Your task to perform on an android device: Open Google Image 0: 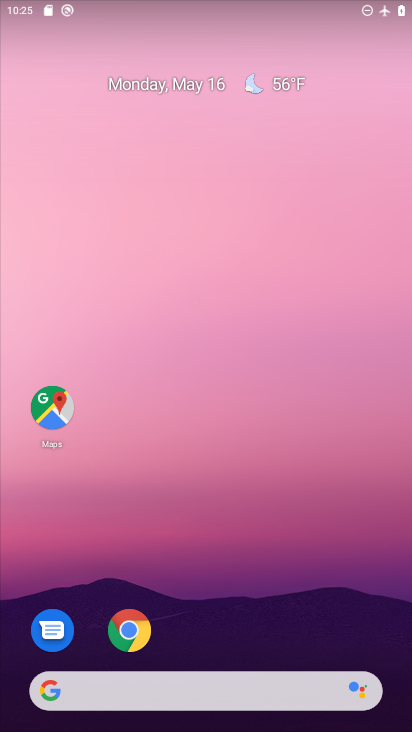
Step 0: click (188, 686)
Your task to perform on an android device: Open Google Image 1: 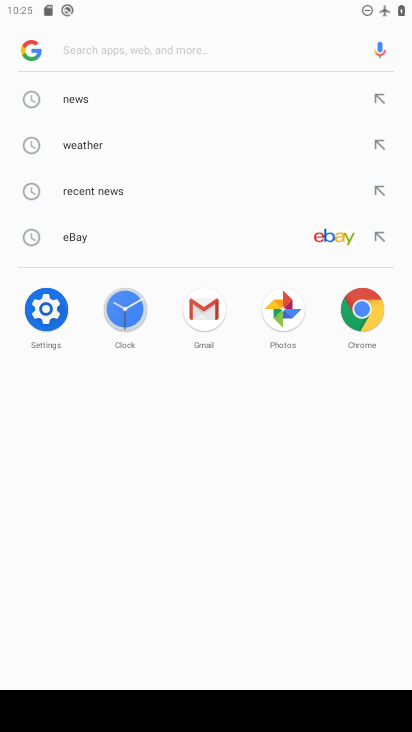
Step 1: click (27, 44)
Your task to perform on an android device: Open Google Image 2: 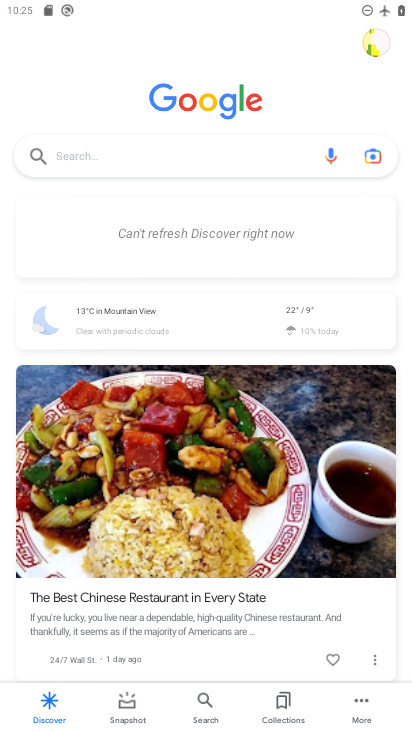
Step 2: task complete